Your task to perform on an android device: see tabs open on other devices in the chrome app Image 0: 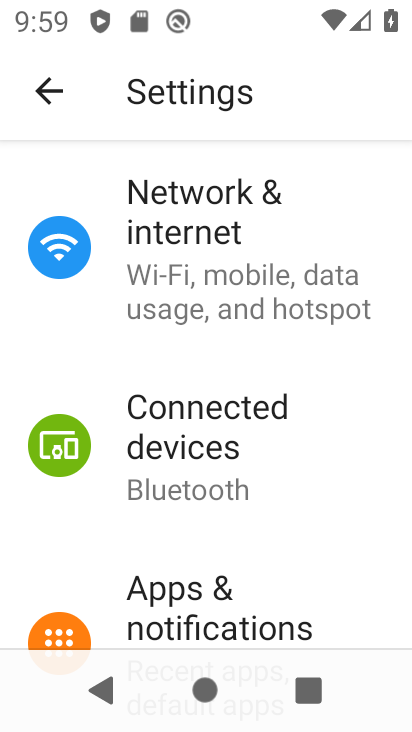
Step 0: press home button
Your task to perform on an android device: see tabs open on other devices in the chrome app Image 1: 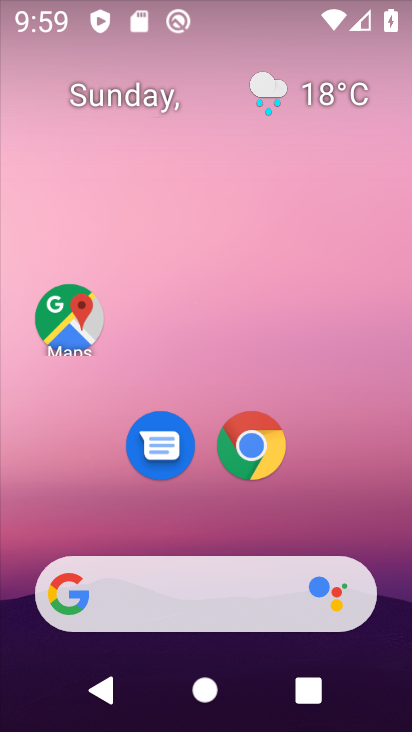
Step 1: click (254, 430)
Your task to perform on an android device: see tabs open on other devices in the chrome app Image 2: 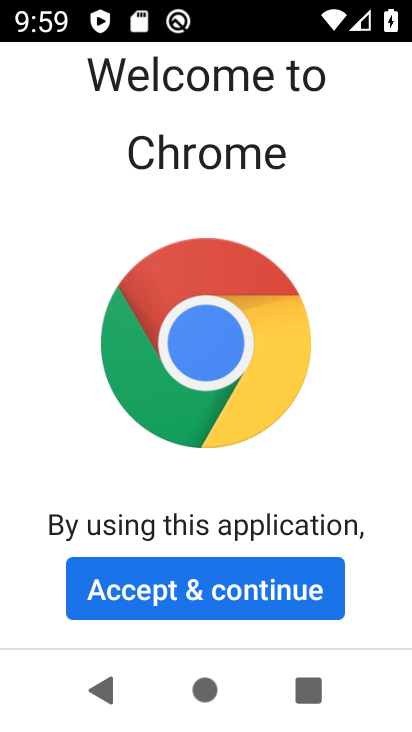
Step 2: click (195, 579)
Your task to perform on an android device: see tabs open on other devices in the chrome app Image 3: 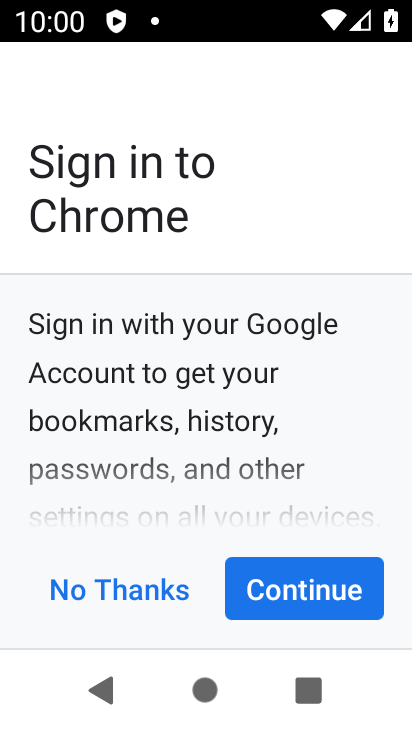
Step 3: click (310, 592)
Your task to perform on an android device: see tabs open on other devices in the chrome app Image 4: 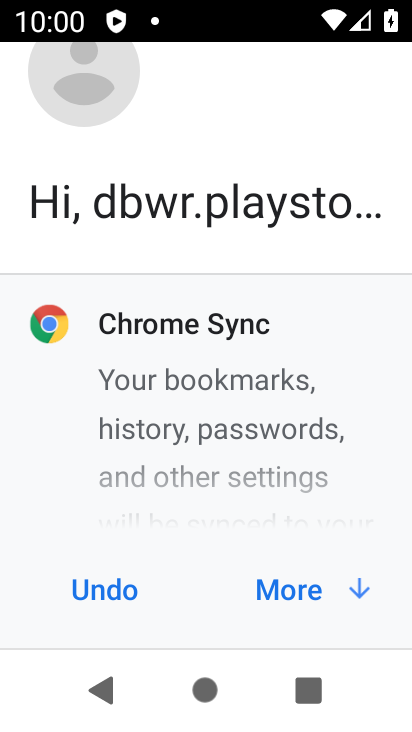
Step 4: click (312, 589)
Your task to perform on an android device: see tabs open on other devices in the chrome app Image 5: 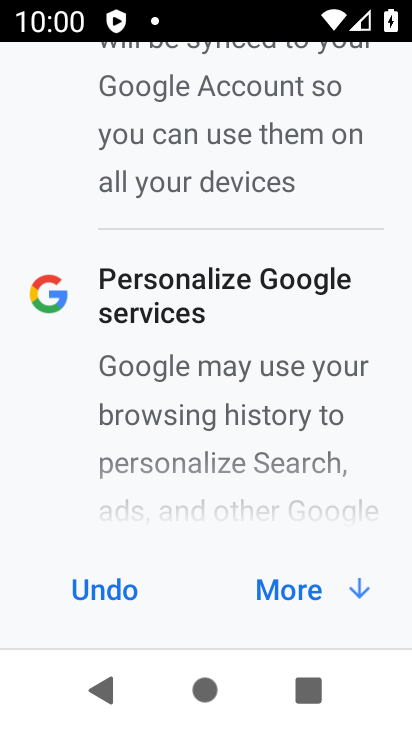
Step 5: click (312, 589)
Your task to perform on an android device: see tabs open on other devices in the chrome app Image 6: 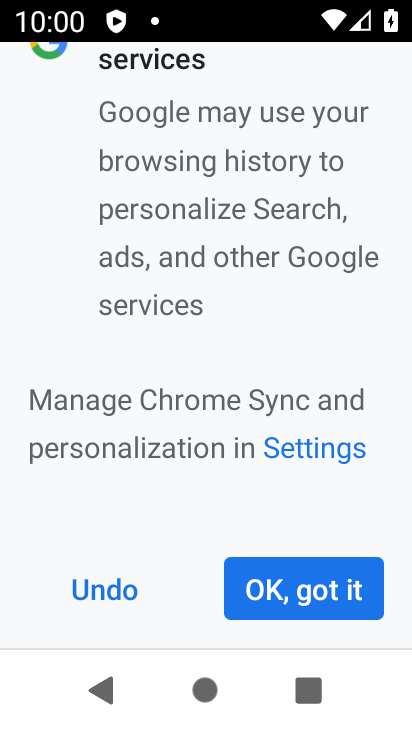
Step 6: click (312, 589)
Your task to perform on an android device: see tabs open on other devices in the chrome app Image 7: 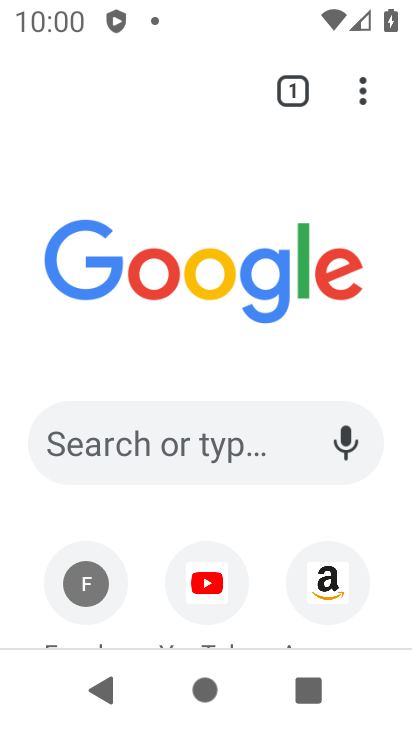
Step 7: click (359, 86)
Your task to perform on an android device: see tabs open on other devices in the chrome app Image 8: 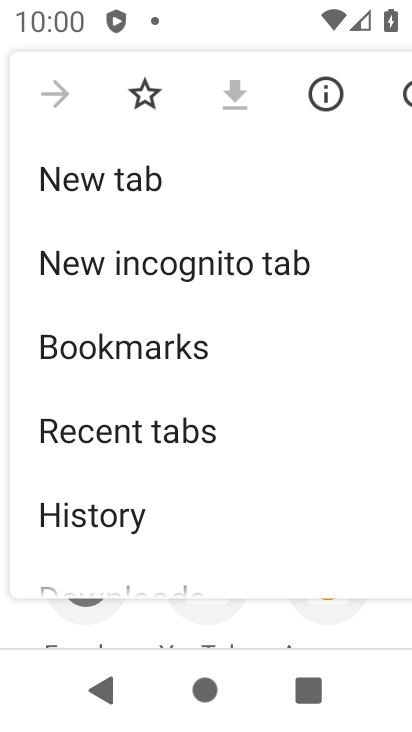
Step 8: click (230, 429)
Your task to perform on an android device: see tabs open on other devices in the chrome app Image 9: 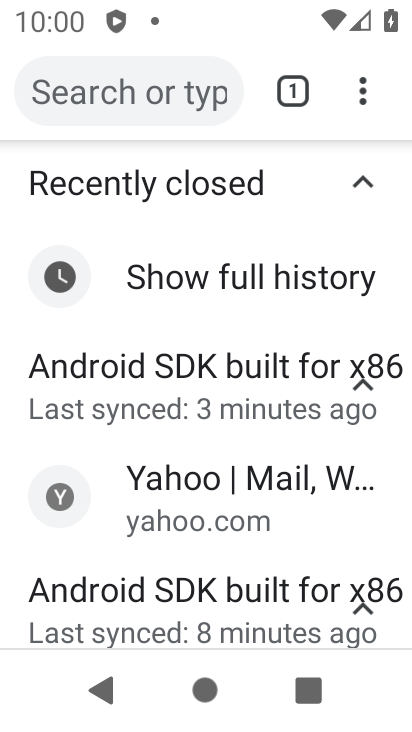
Step 9: task complete